Your task to perform on an android device: Open privacy settings Image 0: 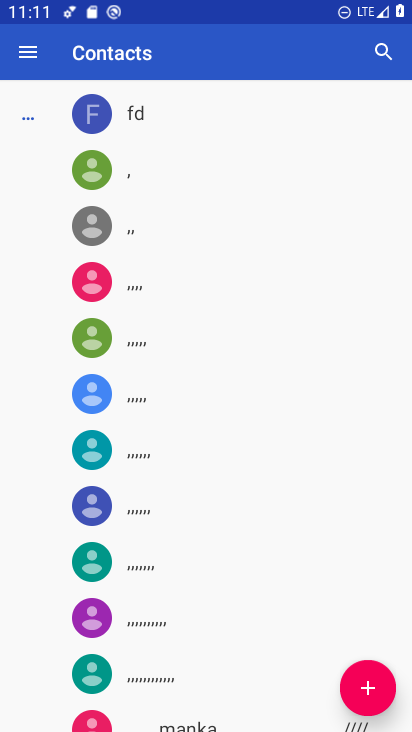
Step 0: press home button
Your task to perform on an android device: Open privacy settings Image 1: 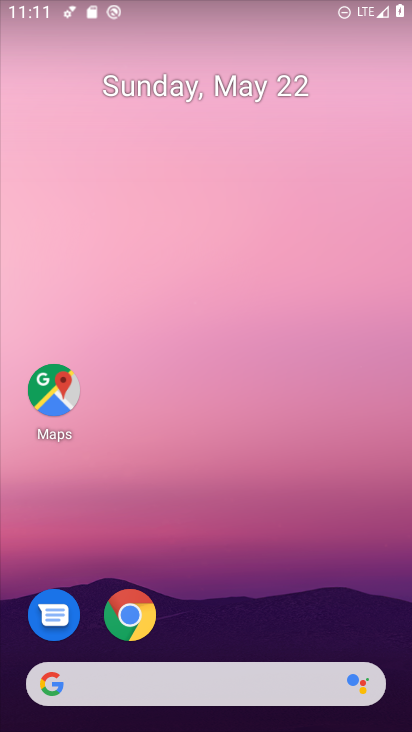
Step 1: drag from (218, 588) to (261, 137)
Your task to perform on an android device: Open privacy settings Image 2: 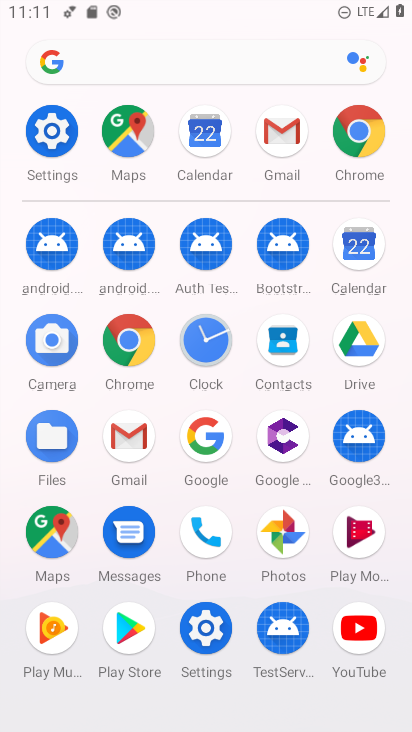
Step 2: click (54, 120)
Your task to perform on an android device: Open privacy settings Image 3: 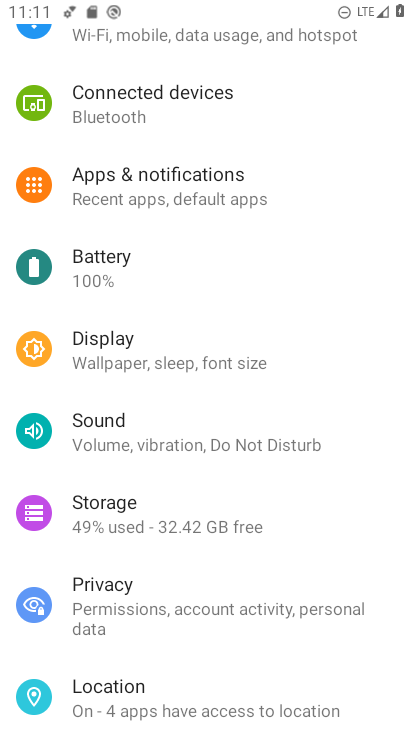
Step 3: drag from (239, 139) to (317, 169)
Your task to perform on an android device: Open privacy settings Image 4: 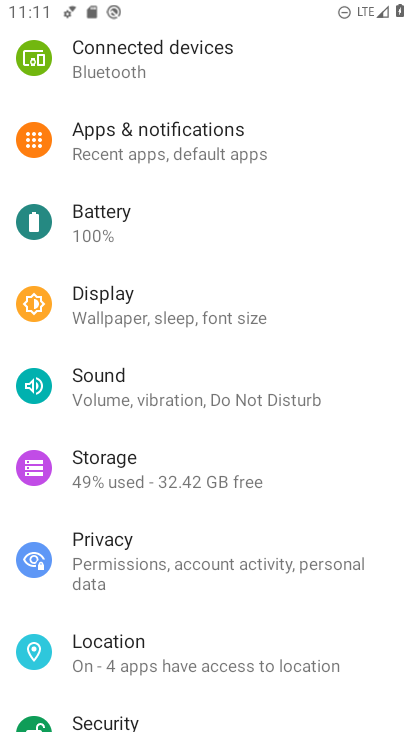
Step 4: click (112, 546)
Your task to perform on an android device: Open privacy settings Image 5: 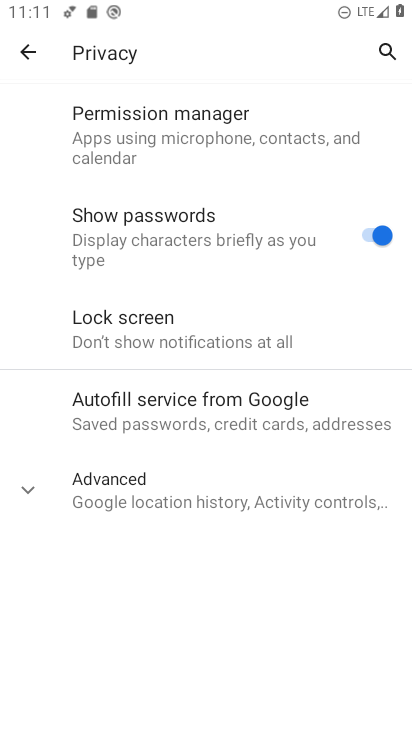
Step 5: task complete